Your task to perform on an android device: Open Android settings Image 0: 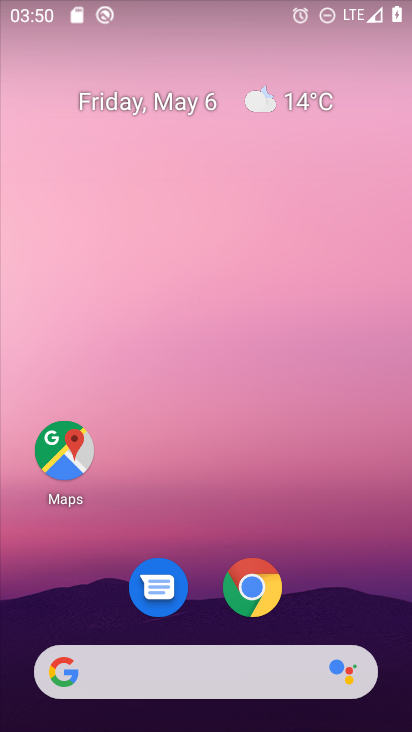
Step 0: drag from (340, 571) to (258, 11)
Your task to perform on an android device: Open Android settings Image 1: 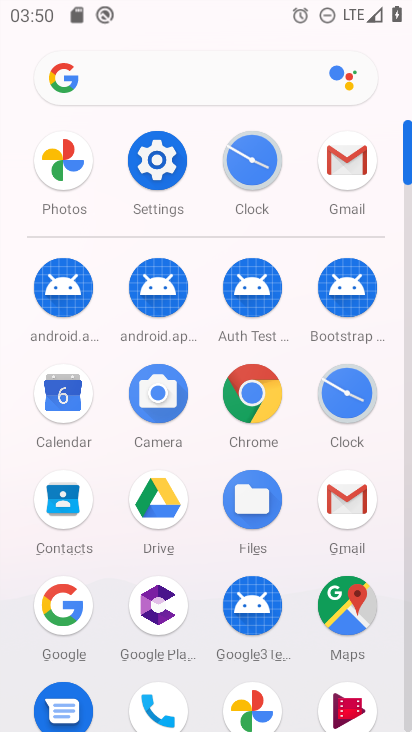
Step 1: click (166, 155)
Your task to perform on an android device: Open Android settings Image 2: 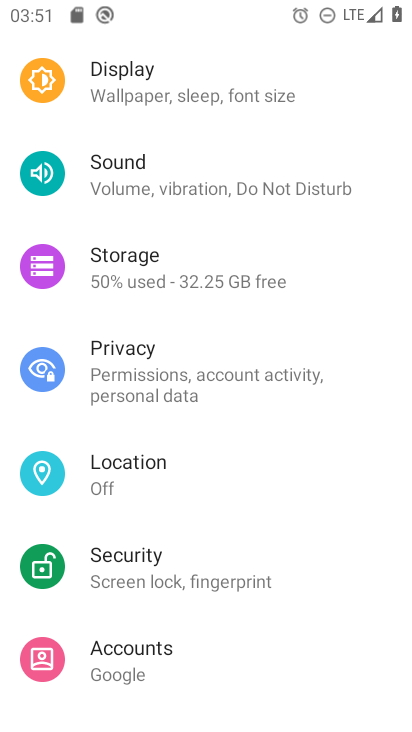
Step 2: drag from (215, 629) to (241, 96)
Your task to perform on an android device: Open Android settings Image 3: 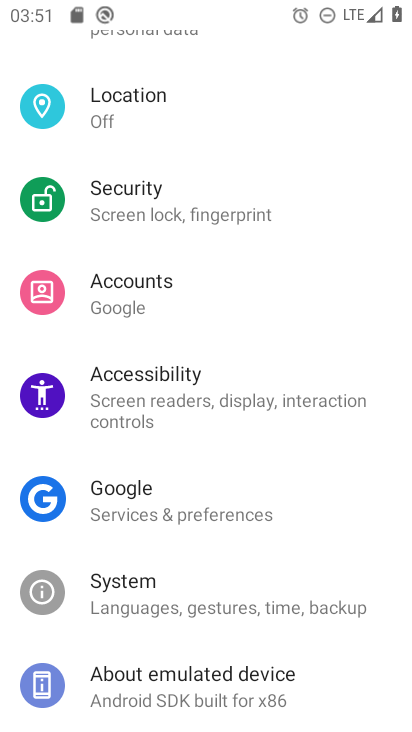
Step 3: click (216, 681)
Your task to perform on an android device: Open Android settings Image 4: 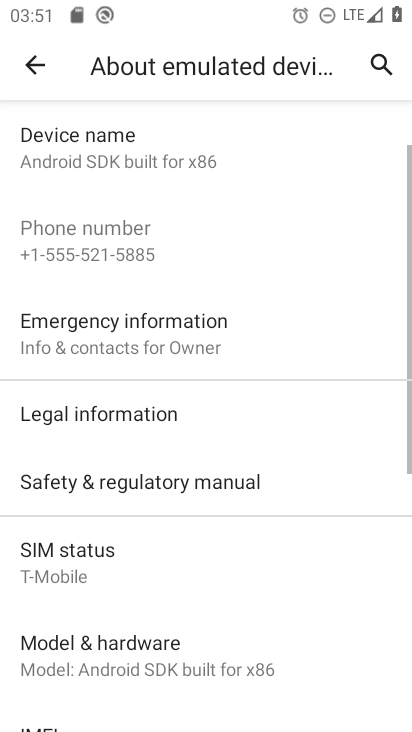
Step 4: drag from (213, 633) to (266, 190)
Your task to perform on an android device: Open Android settings Image 5: 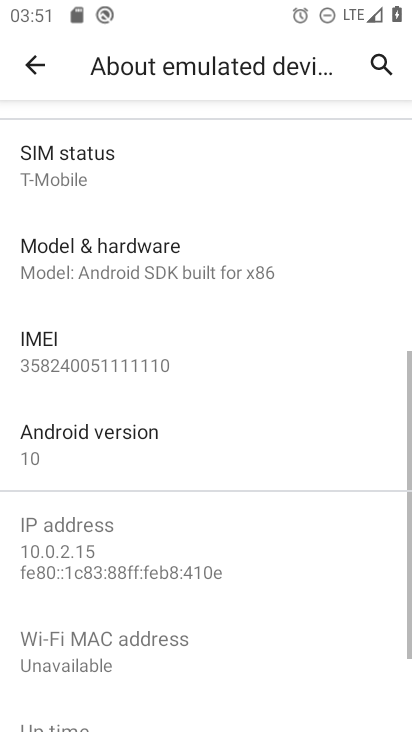
Step 5: click (138, 444)
Your task to perform on an android device: Open Android settings Image 6: 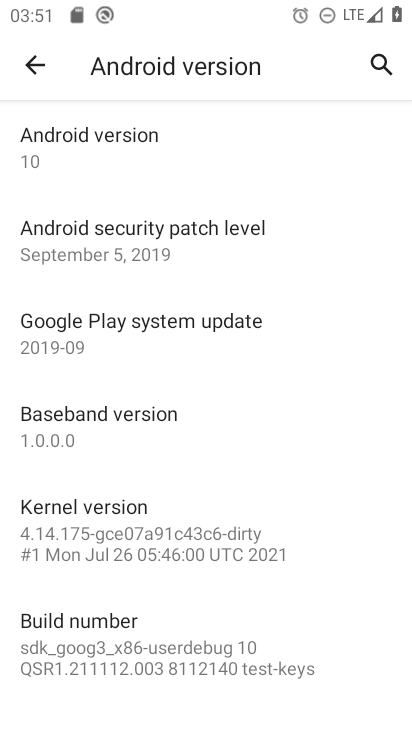
Step 6: task complete